Your task to perform on an android device: change the clock display to analog Image 0: 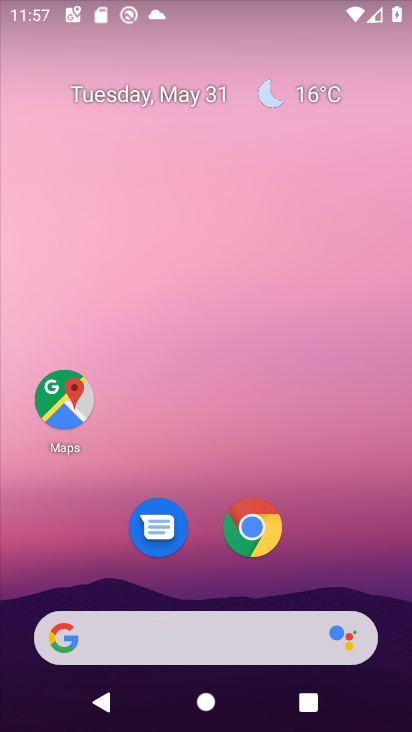
Step 0: drag from (361, 594) to (374, 0)
Your task to perform on an android device: change the clock display to analog Image 1: 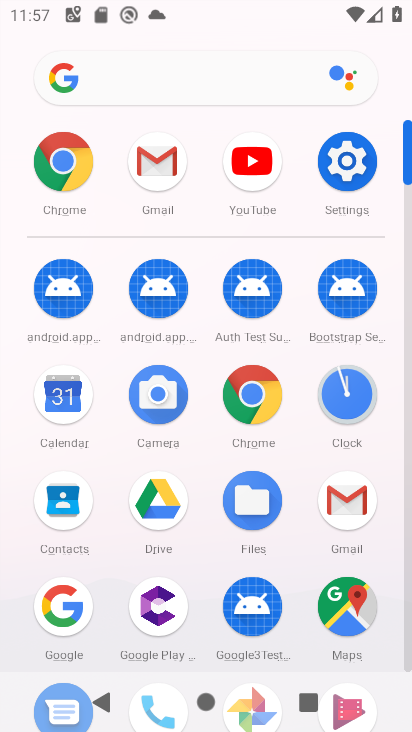
Step 1: click (341, 393)
Your task to perform on an android device: change the clock display to analog Image 2: 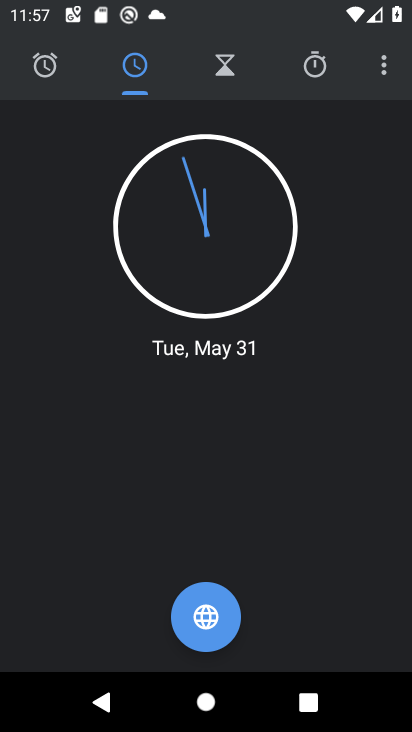
Step 2: click (384, 69)
Your task to perform on an android device: change the clock display to analog Image 3: 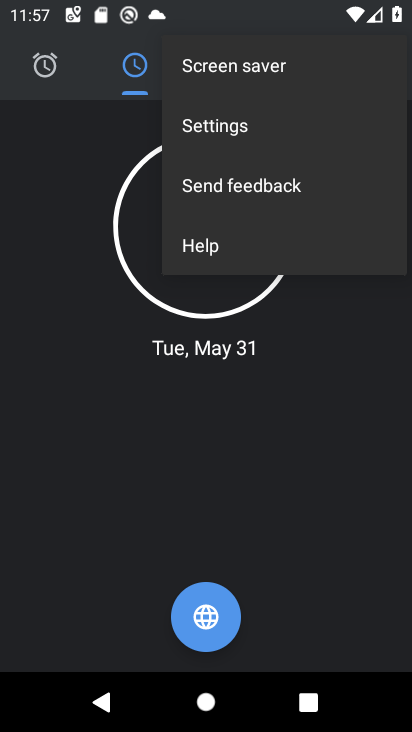
Step 3: click (227, 128)
Your task to perform on an android device: change the clock display to analog Image 4: 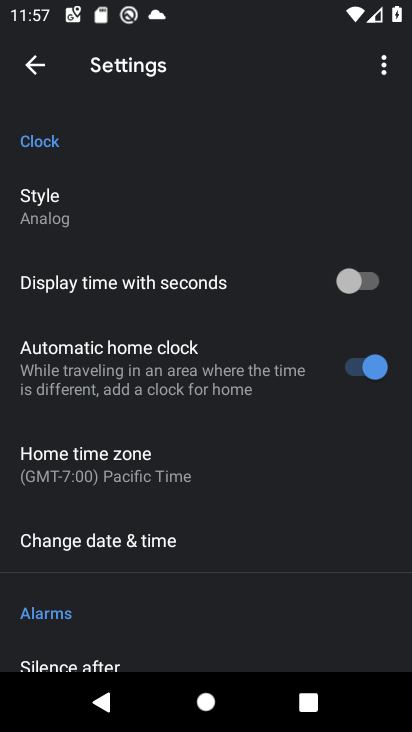
Step 4: task complete